Your task to perform on an android device: Open Maps and search for coffee Image 0: 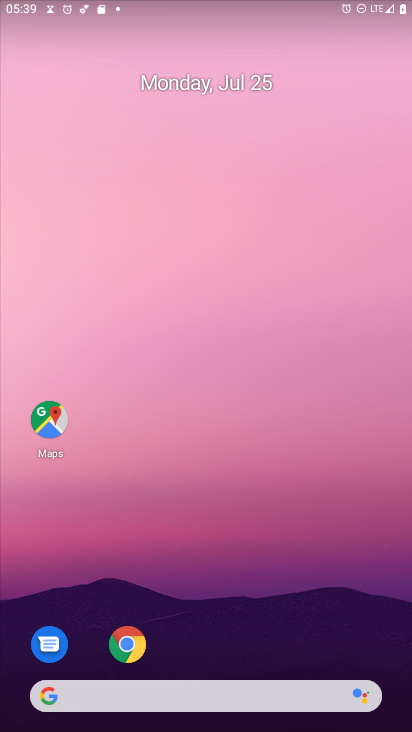
Step 0: drag from (184, 662) to (209, 139)
Your task to perform on an android device: Open Maps and search for coffee Image 1: 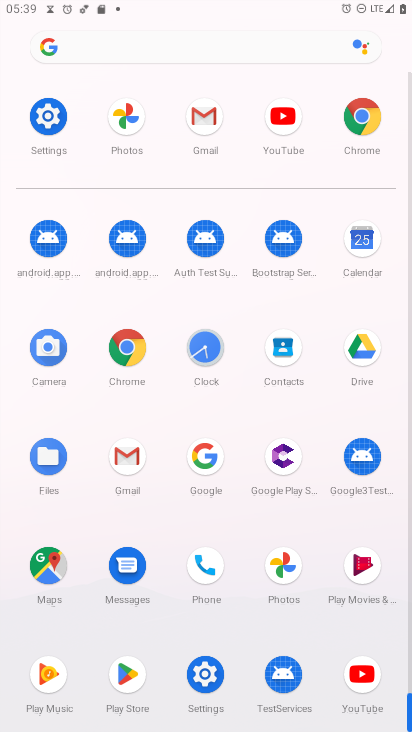
Step 1: click (48, 571)
Your task to perform on an android device: Open Maps and search for coffee Image 2: 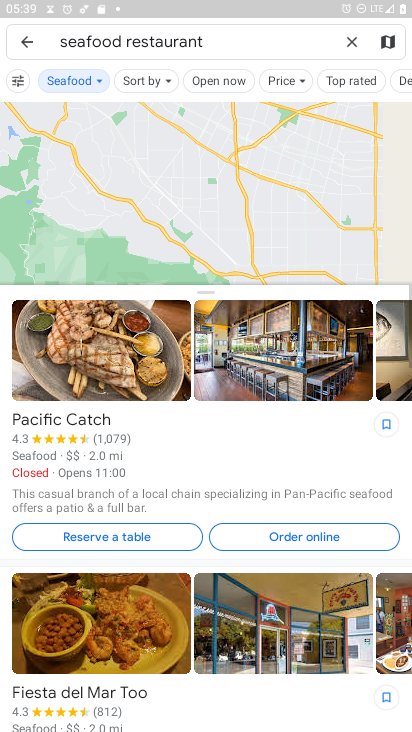
Step 2: click (26, 38)
Your task to perform on an android device: Open Maps and search for coffee Image 3: 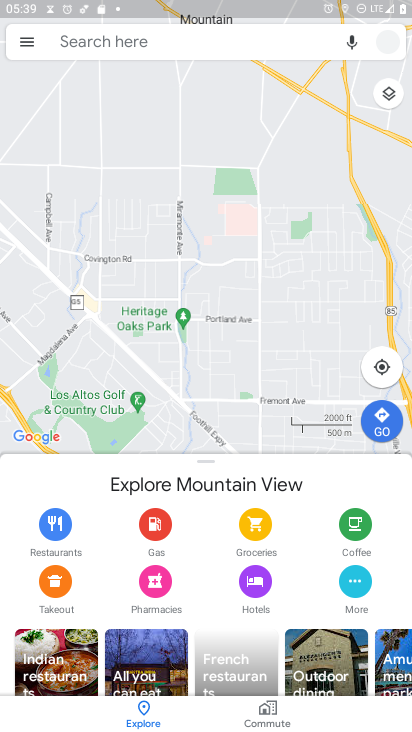
Step 3: click (101, 42)
Your task to perform on an android device: Open Maps and search for coffee Image 4: 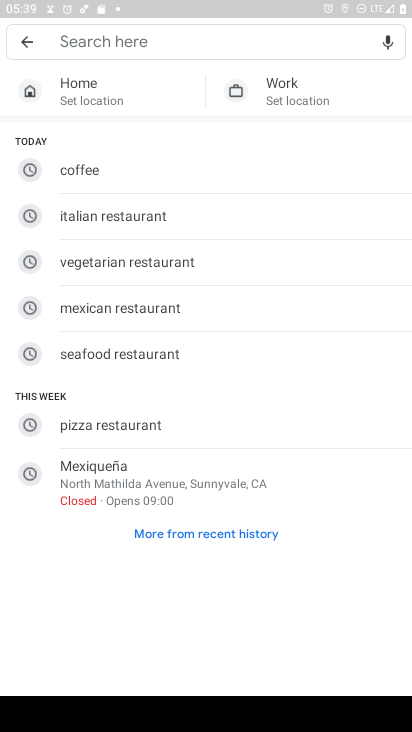
Step 4: click (87, 176)
Your task to perform on an android device: Open Maps and search for coffee Image 5: 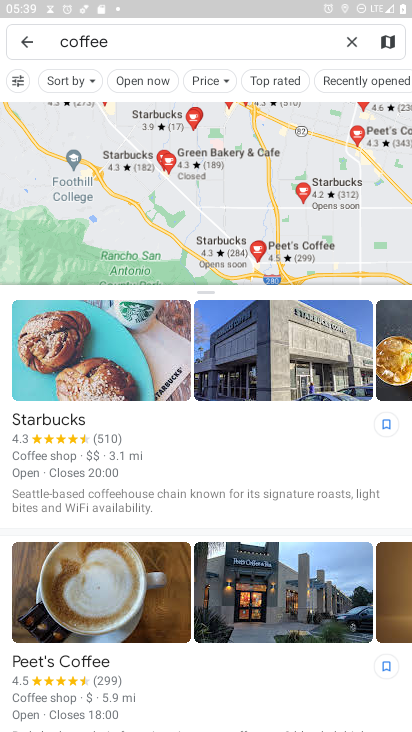
Step 5: task complete